Your task to perform on an android device: What is the recent news? Image 0: 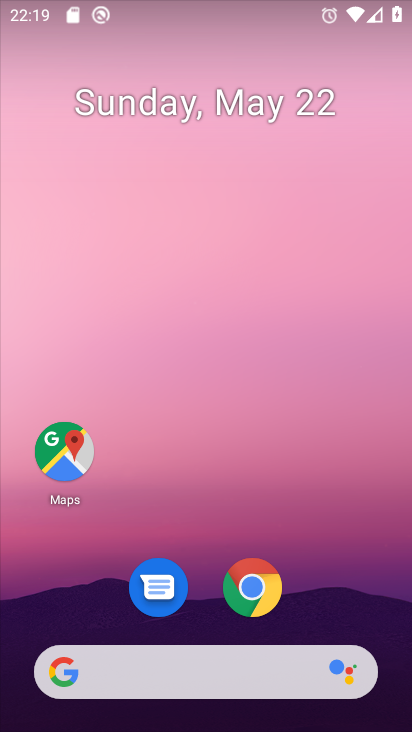
Step 0: click (170, 671)
Your task to perform on an android device: What is the recent news? Image 1: 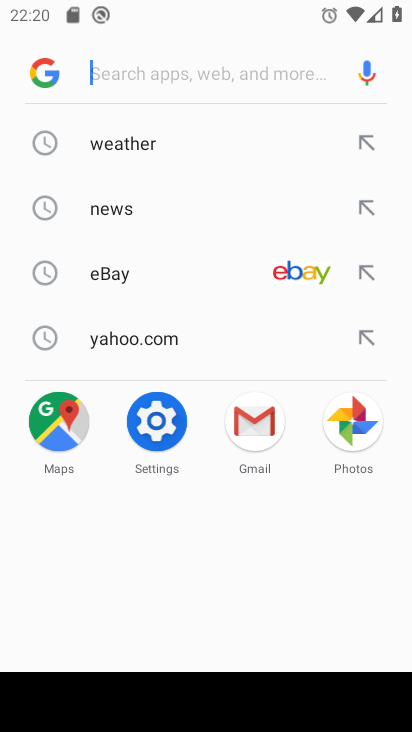
Step 1: type "recent news"
Your task to perform on an android device: What is the recent news? Image 2: 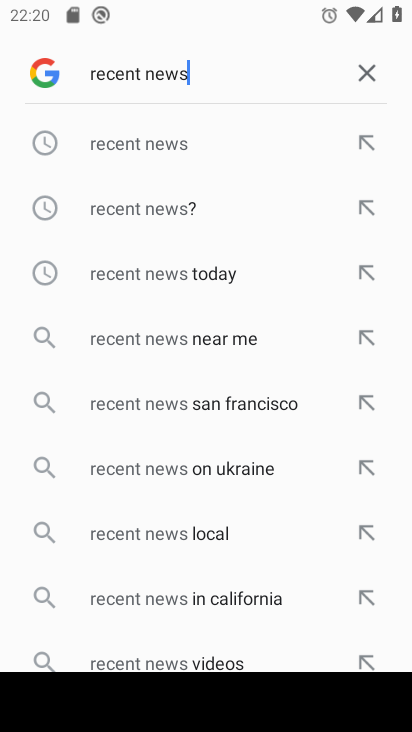
Step 2: click (124, 265)
Your task to perform on an android device: What is the recent news? Image 3: 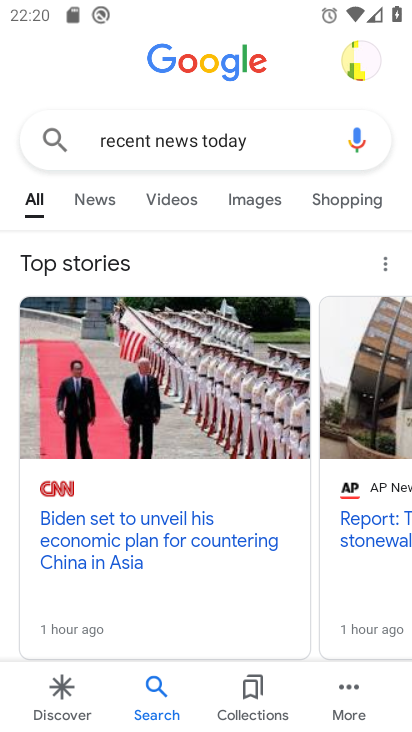
Step 3: task complete